Your task to perform on an android device: Find coffee shops on Maps Image 0: 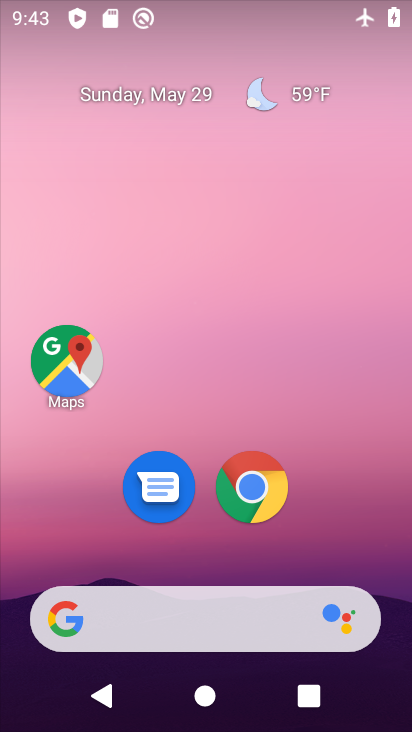
Step 0: click (72, 381)
Your task to perform on an android device: Find coffee shops on Maps Image 1: 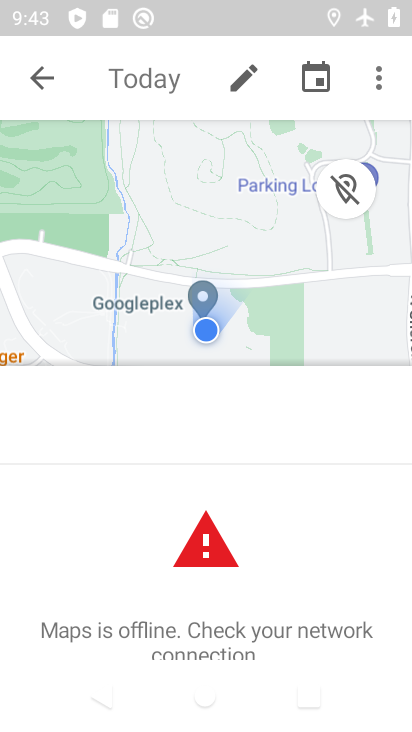
Step 1: task complete